Your task to perform on an android device: delete location history Image 0: 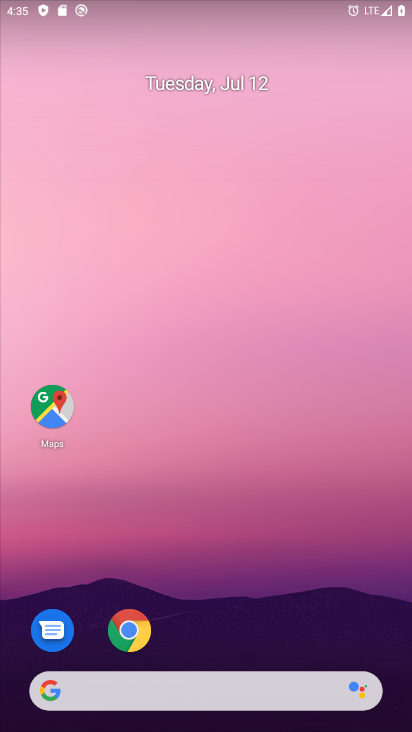
Step 0: drag from (198, 369) to (179, 266)
Your task to perform on an android device: delete location history Image 1: 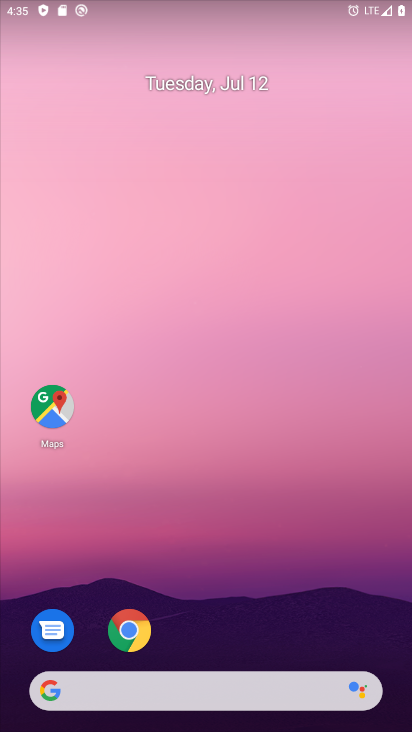
Step 1: drag from (197, 623) to (174, 17)
Your task to perform on an android device: delete location history Image 2: 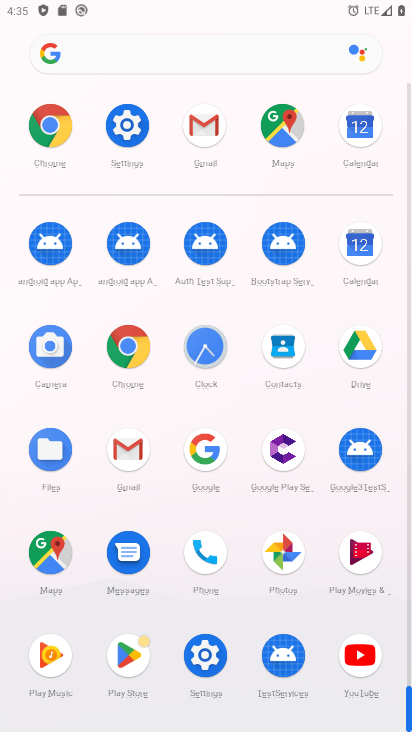
Step 2: click (129, 131)
Your task to perform on an android device: delete location history Image 3: 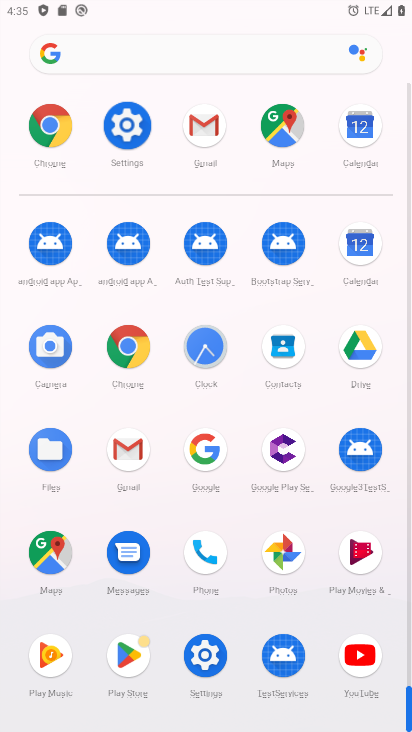
Step 3: click (132, 127)
Your task to perform on an android device: delete location history Image 4: 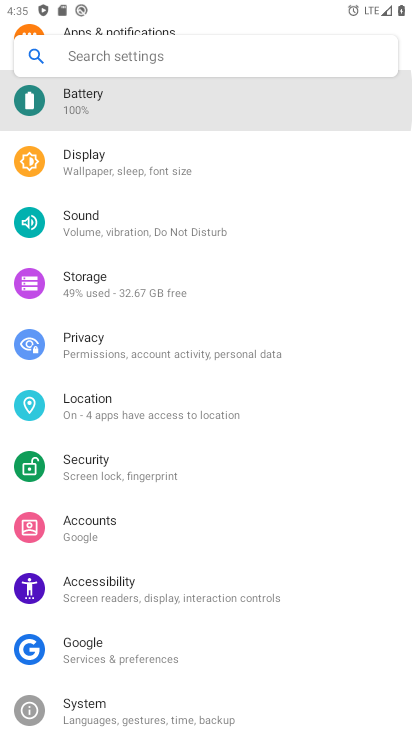
Step 4: click (134, 126)
Your task to perform on an android device: delete location history Image 5: 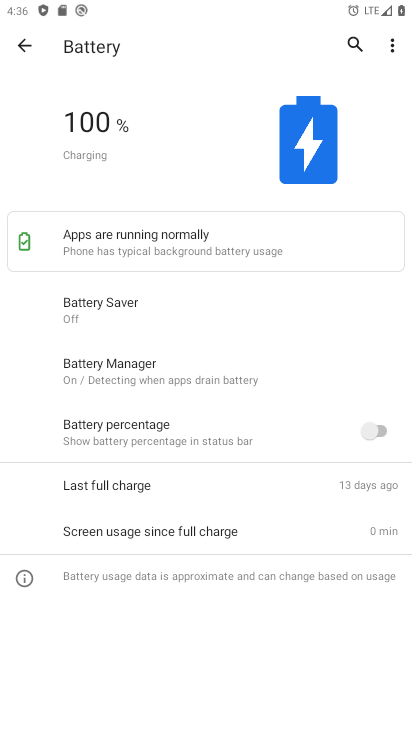
Step 5: click (20, 46)
Your task to perform on an android device: delete location history Image 6: 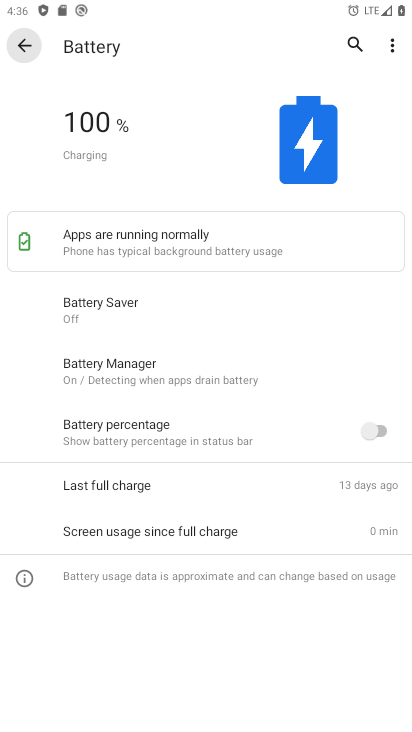
Step 6: click (20, 46)
Your task to perform on an android device: delete location history Image 7: 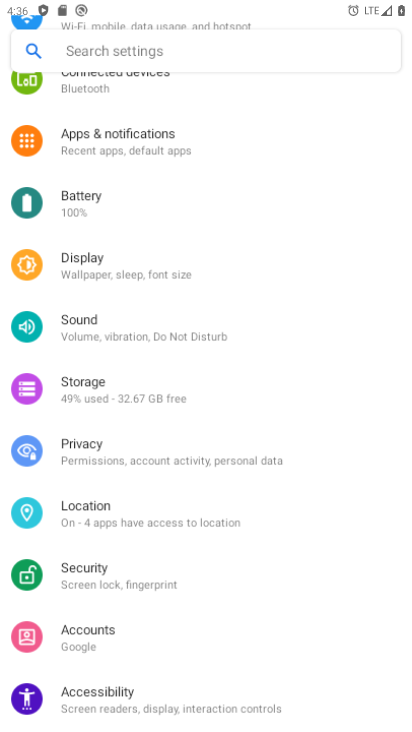
Step 7: click (21, 46)
Your task to perform on an android device: delete location history Image 8: 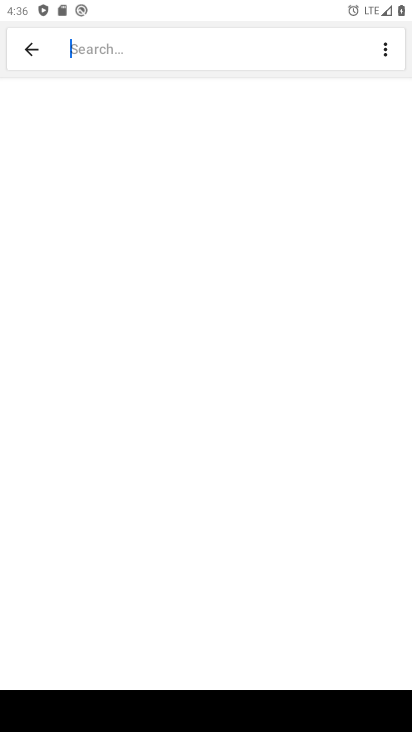
Step 8: click (35, 51)
Your task to perform on an android device: delete location history Image 9: 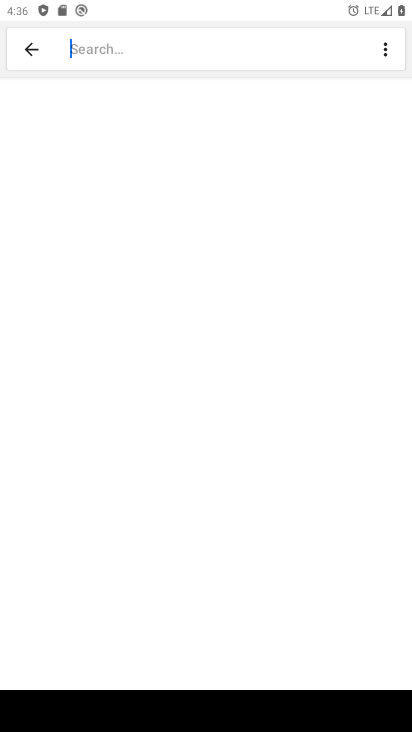
Step 9: click (35, 51)
Your task to perform on an android device: delete location history Image 10: 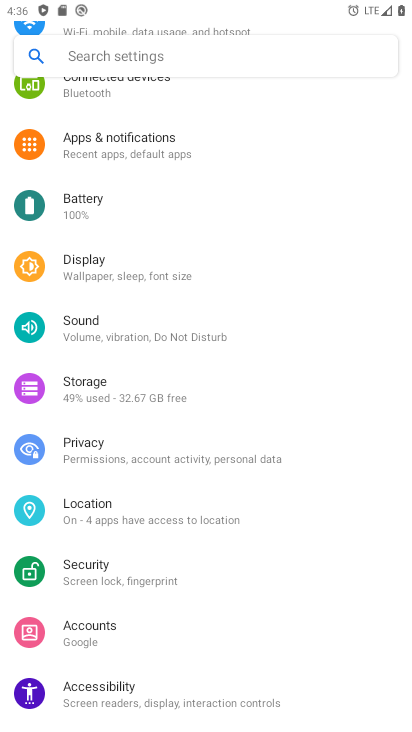
Step 10: drag from (139, 547) to (119, 193)
Your task to perform on an android device: delete location history Image 11: 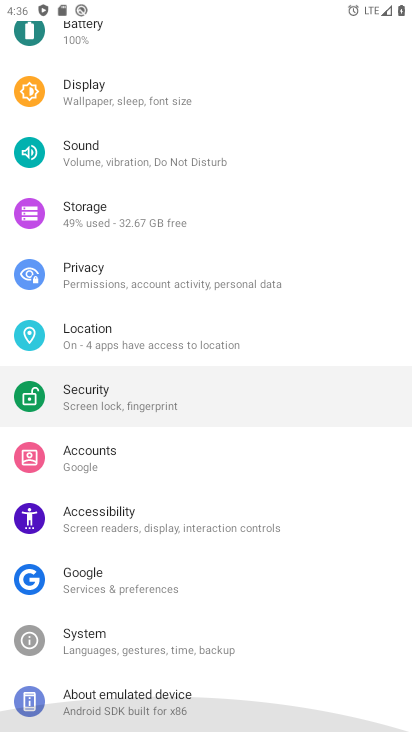
Step 11: drag from (155, 478) to (155, 317)
Your task to perform on an android device: delete location history Image 12: 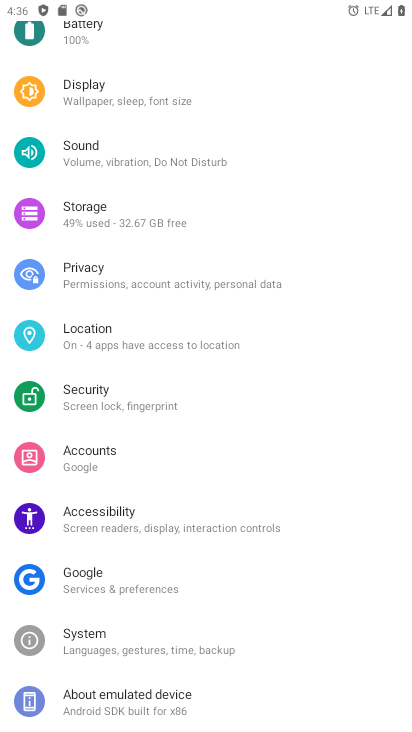
Step 12: click (99, 332)
Your task to perform on an android device: delete location history Image 13: 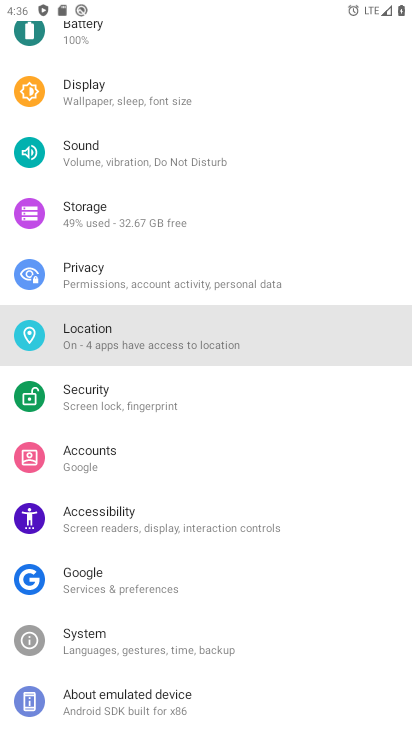
Step 13: click (99, 333)
Your task to perform on an android device: delete location history Image 14: 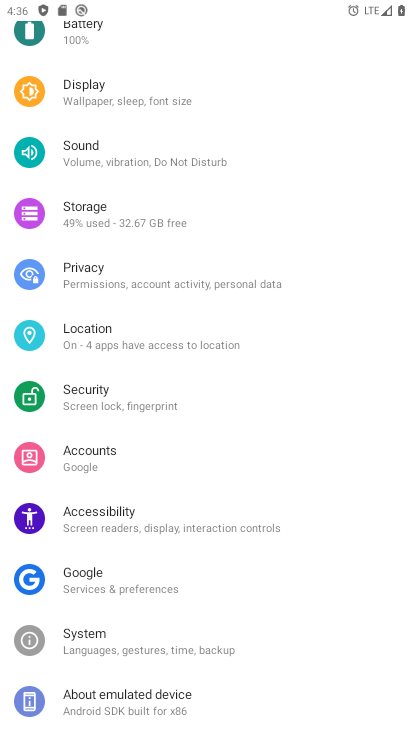
Step 14: click (99, 333)
Your task to perform on an android device: delete location history Image 15: 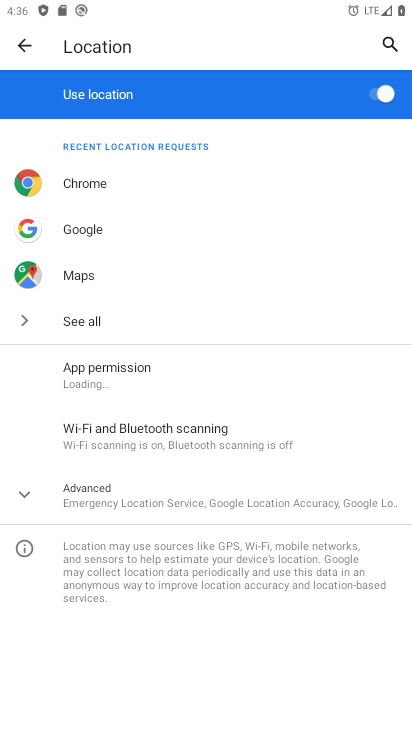
Step 15: click (87, 494)
Your task to perform on an android device: delete location history Image 16: 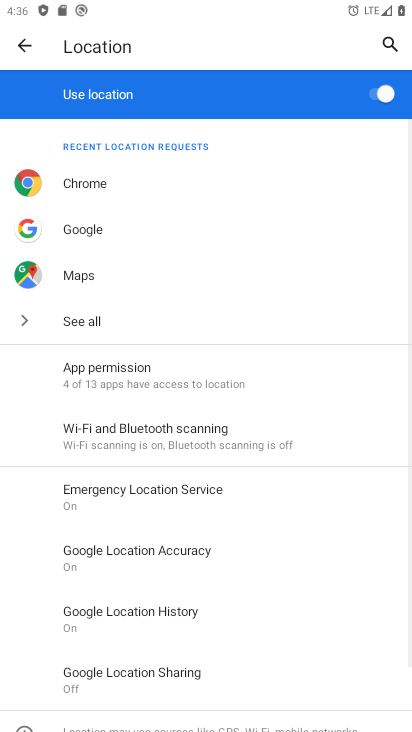
Step 16: click (144, 607)
Your task to perform on an android device: delete location history Image 17: 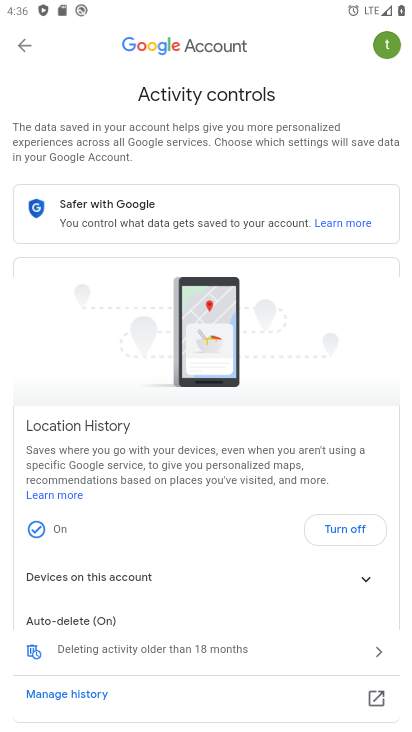
Step 17: task complete